Your task to perform on an android device: Is it going to rain this weekend? Image 0: 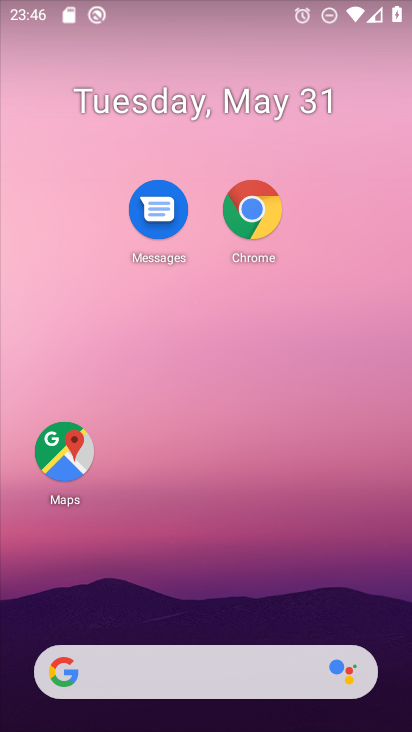
Step 0: press home button
Your task to perform on an android device: Is it going to rain this weekend? Image 1: 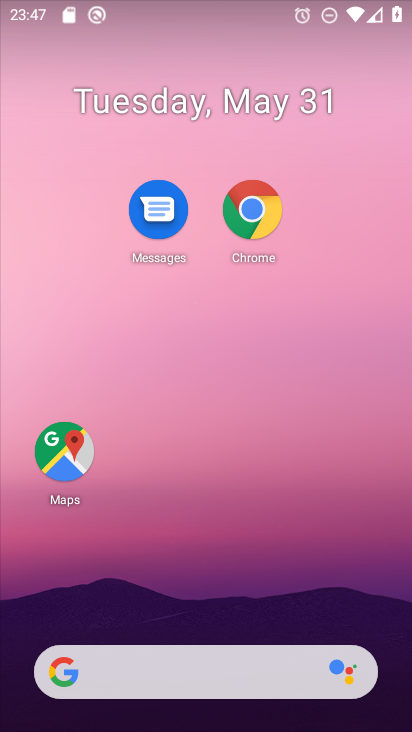
Step 1: drag from (5, 340) to (409, 364)
Your task to perform on an android device: Is it going to rain this weekend? Image 2: 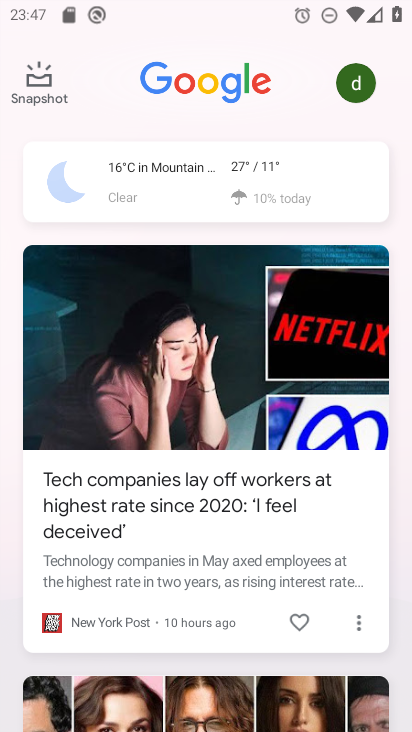
Step 2: click (264, 175)
Your task to perform on an android device: Is it going to rain this weekend? Image 3: 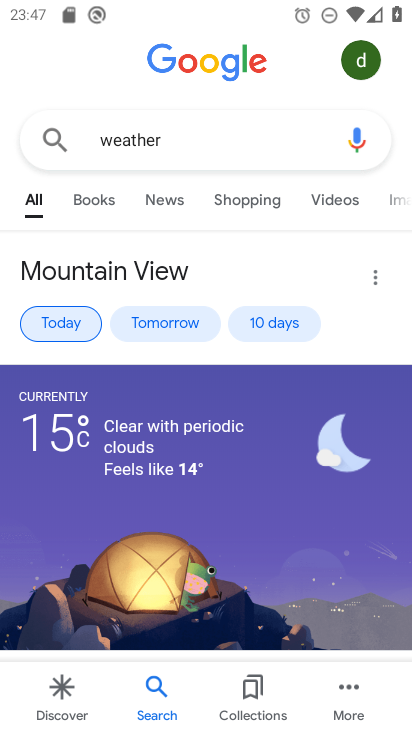
Step 3: drag from (224, 512) to (244, 170)
Your task to perform on an android device: Is it going to rain this weekend? Image 4: 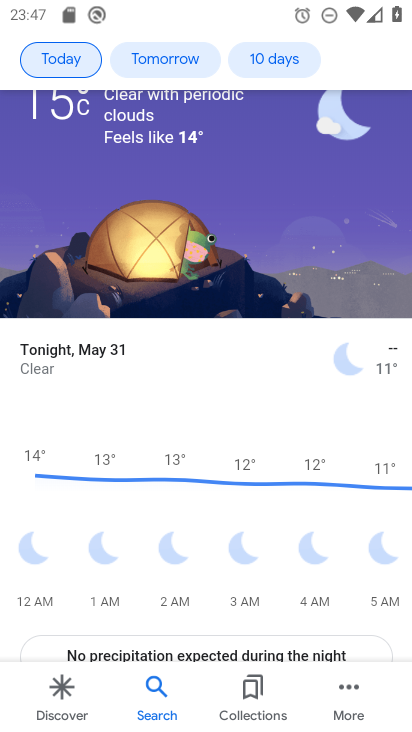
Step 4: drag from (381, 552) to (1, 554)
Your task to perform on an android device: Is it going to rain this weekend? Image 5: 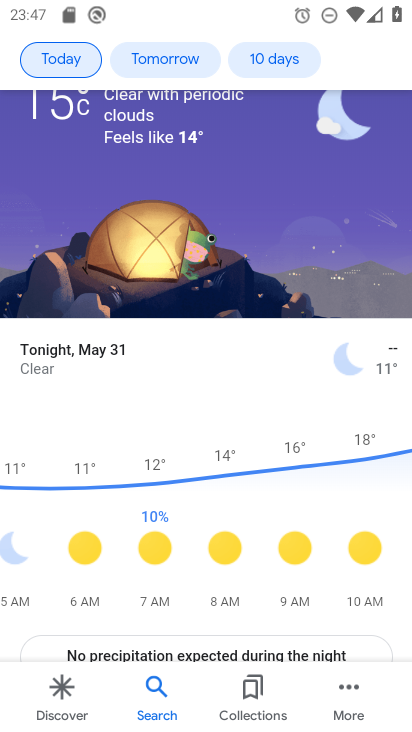
Step 5: drag from (367, 555) to (178, 541)
Your task to perform on an android device: Is it going to rain this weekend? Image 6: 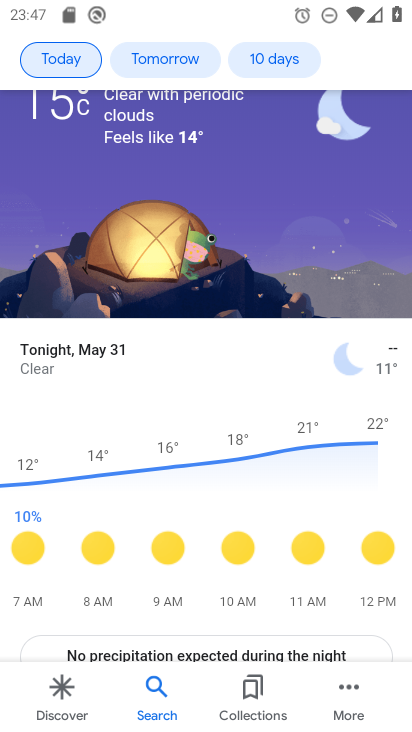
Step 6: click (271, 60)
Your task to perform on an android device: Is it going to rain this weekend? Image 7: 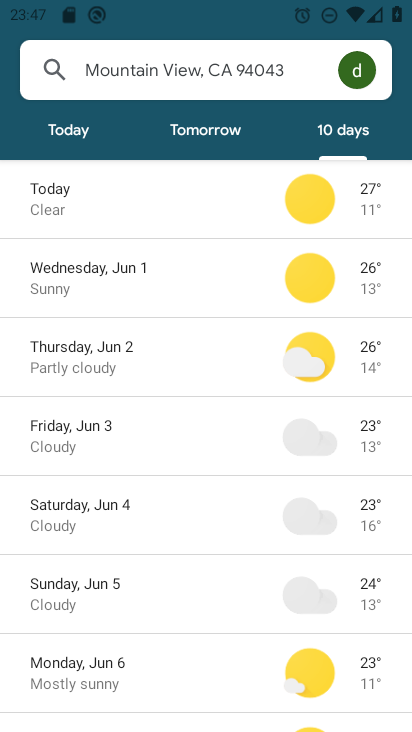
Step 7: task complete